Your task to perform on an android device: Open calendar and show me the second week of next month Image 0: 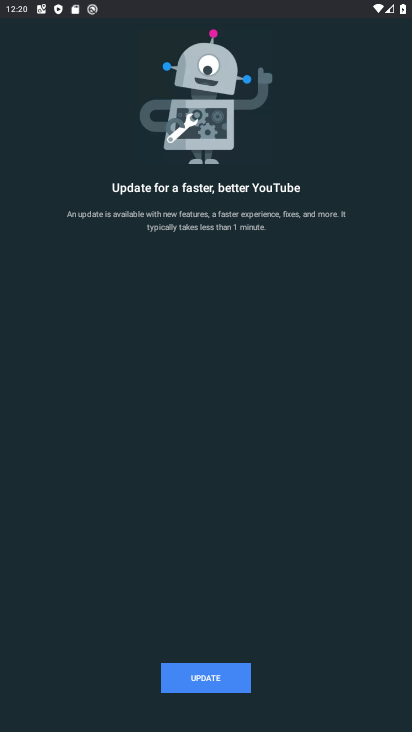
Step 0: press home button
Your task to perform on an android device: Open calendar and show me the second week of next month Image 1: 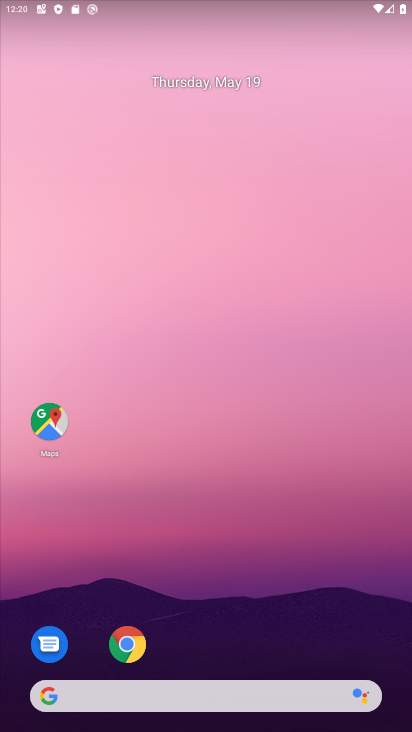
Step 1: drag from (364, 624) to (306, 227)
Your task to perform on an android device: Open calendar and show me the second week of next month Image 2: 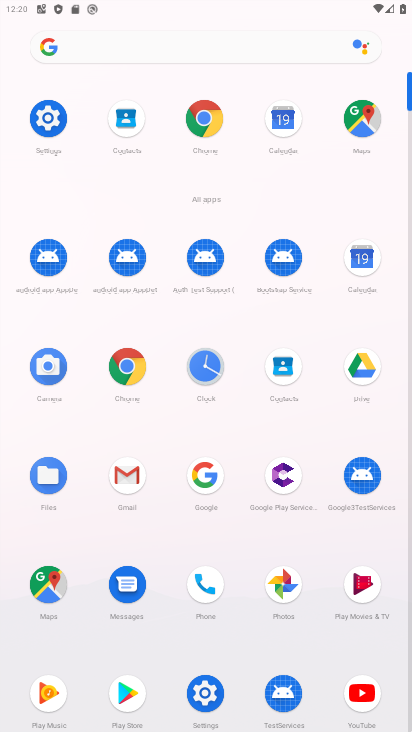
Step 2: click (355, 265)
Your task to perform on an android device: Open calendar and show me the second week of next month Image 3: 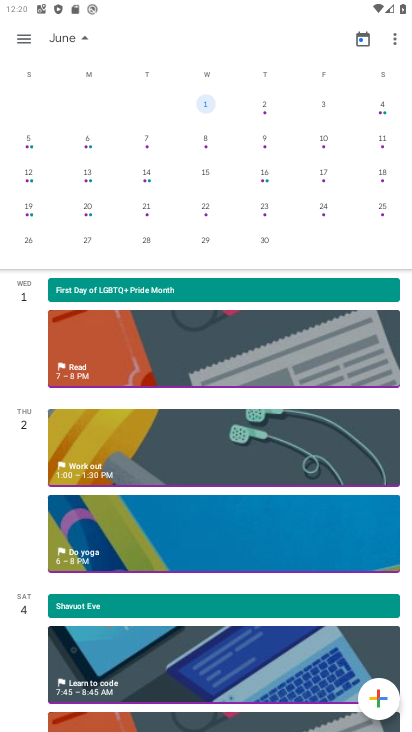
Step 3: click (20, 140)
Your task to perform on an android device: Open calendar and show me the second week of next month Image 4: 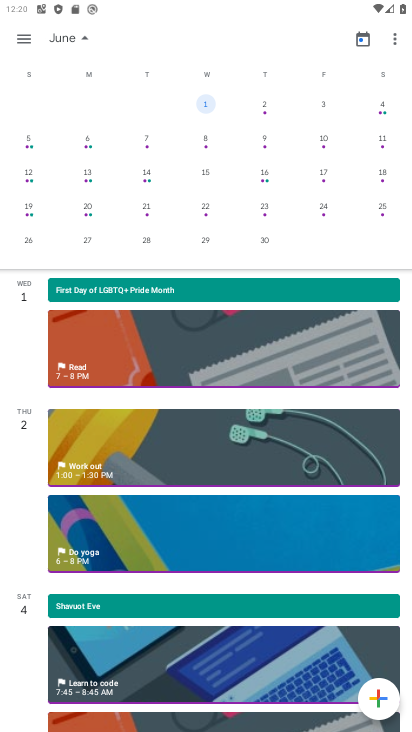
Step 4: click (34, 140)
Your task to perform on an android device: Open calendar and show me the second week of next month Image 5: 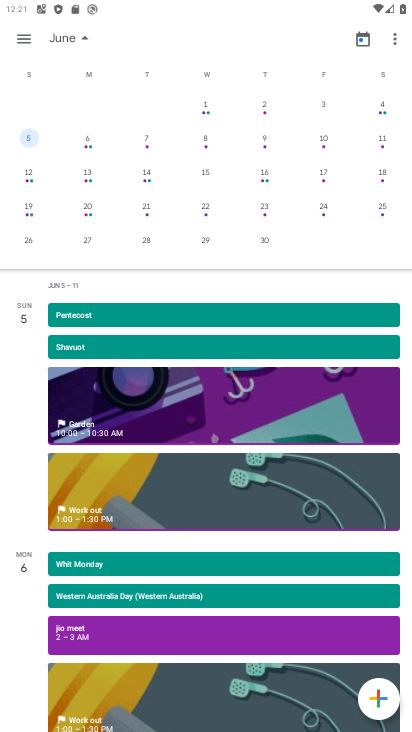
Step 5: task complete